Your task to perform on an android device: remove spam from my inbox in the gmail app Image 0: 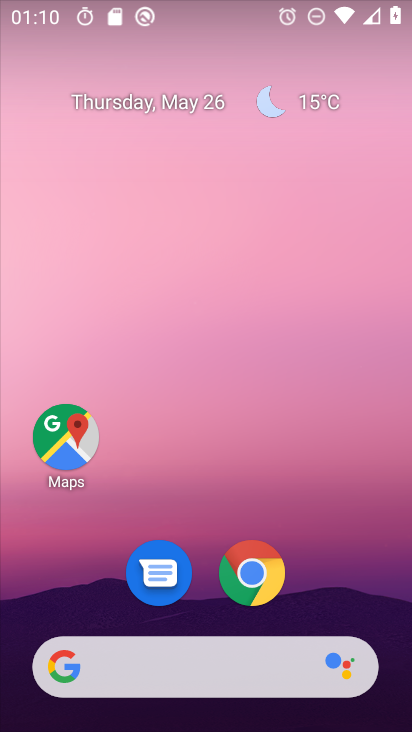
Step 0: drag from (338, 625) to (392, 17)
Your task to perform on an android device: remove spam from my inbox in the gmail app Image 1: 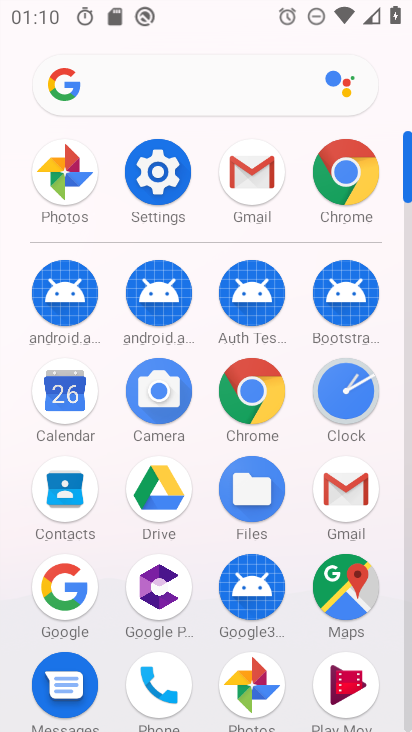
Step 1: click (258, 176)
Your task to perform on an android device: remove spam from my inbox in the gmail app Image 2: 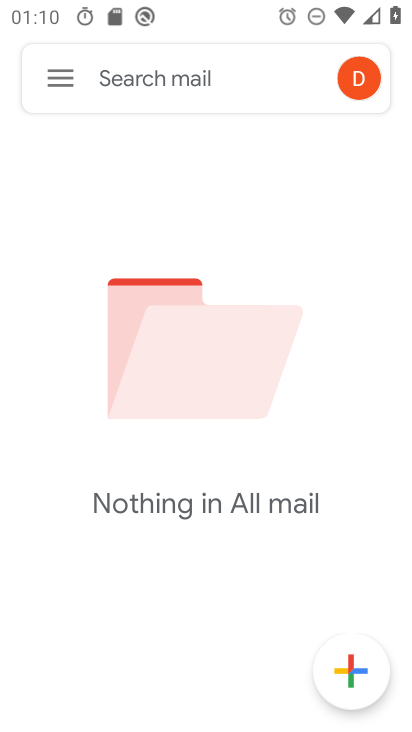
Step 2: click (53, 81)
Your task to perform on an android device: remove spam from my inbox in the gmail app Image 3: 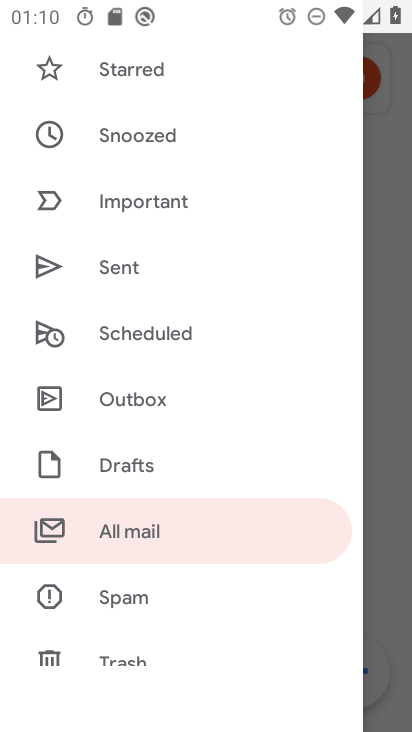
Step 3: click (119, 595)
Your task to perform on an android device: remove spam from my inbox in the gmail app Image 4: 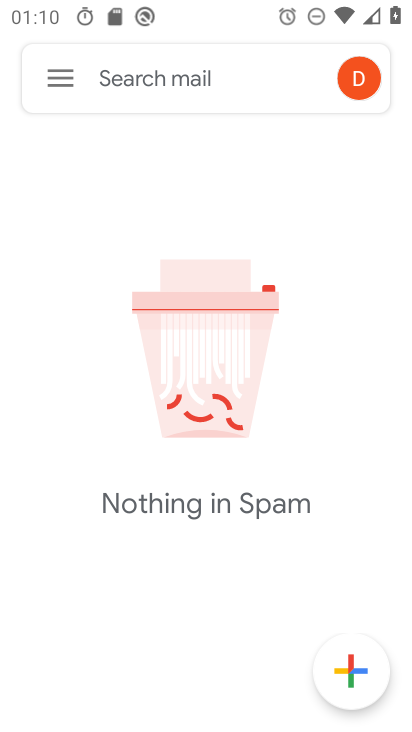
Step 4: task complete